Your task to perform on an android device: turn pop-ups on in chrome Image 0: 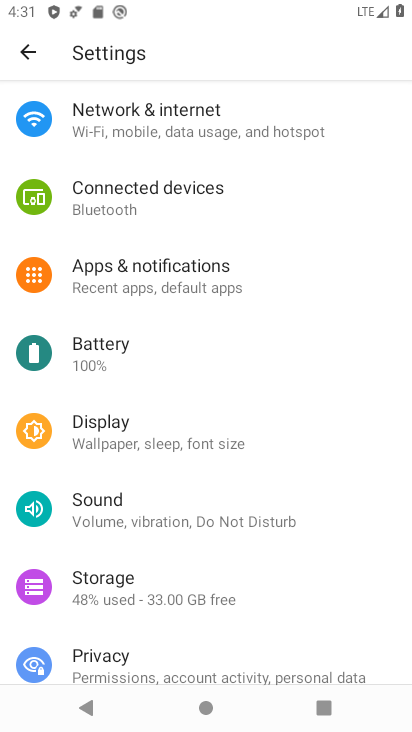
Step 0: press back button
Your task to perform on an android device: turn pop-ups on in chrome Image 1: 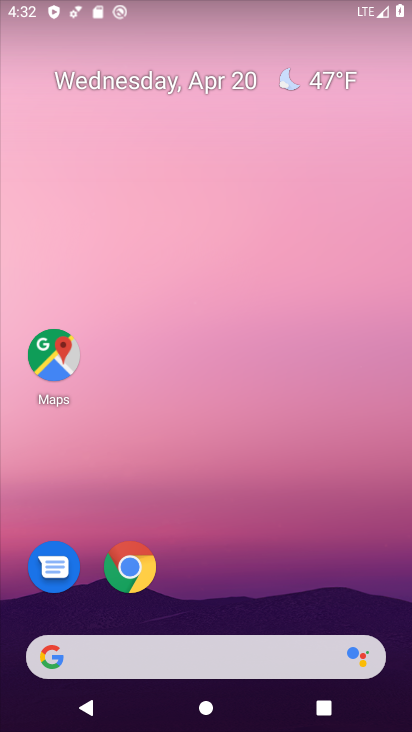
Step 1: drag from (293, 529) to (190, 22)
Your task to perform on an android device: turn pop-ups on in chrome Image 2: 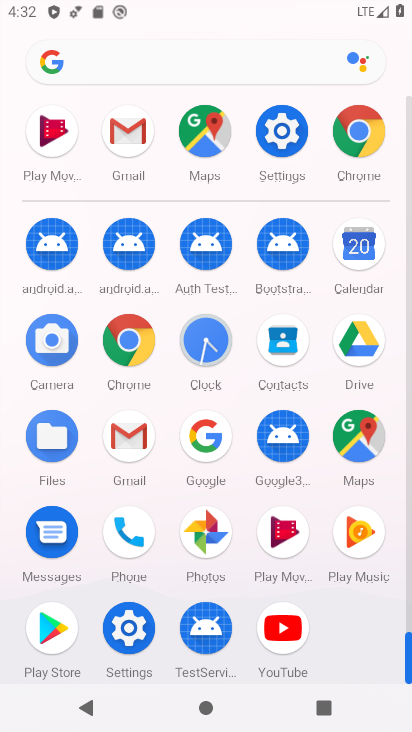
Step 2: click (353, 126)
Your task to perform on an android device: turn pop-ups on in chrome Image 3: 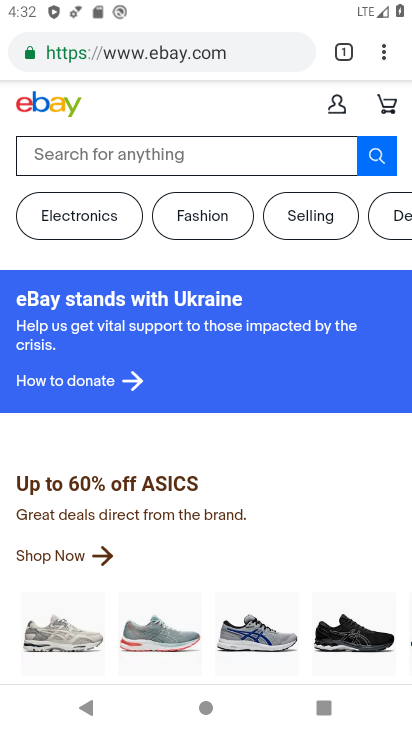
Step 3: drag from (384, 55) to (211, 600)
Your task to perform on an android device: turn pop-ups on in chrome Image 4: 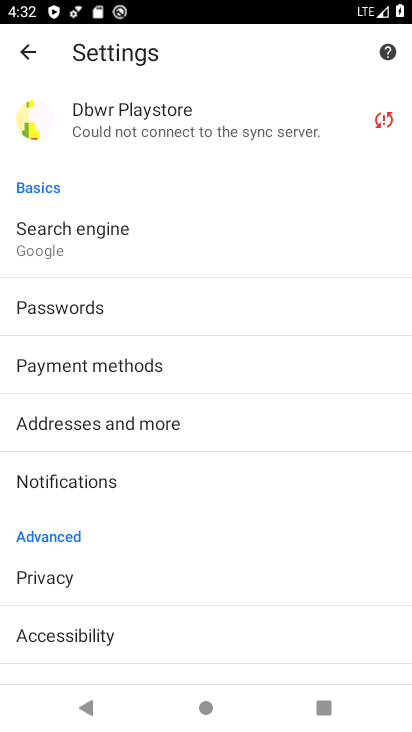
Step 4: drag from (240, 531) to (242, 206)
Your task to perform on an android device: turn pop-ups on in chrome Image 5: 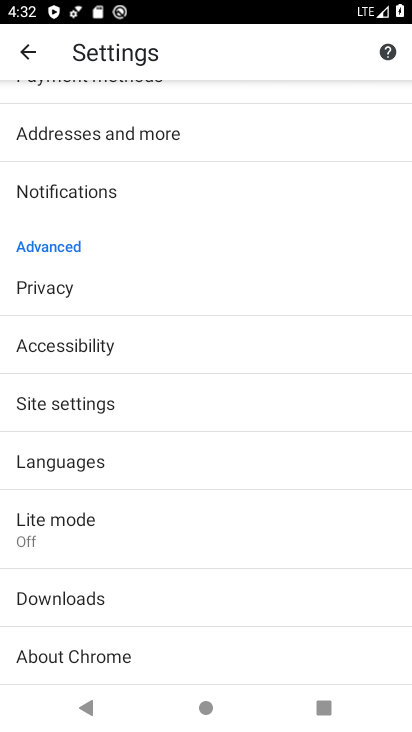
Step 5: click (85, 396)
Your task to perform on an android device: turn pop-ups on in chrome Image 6: 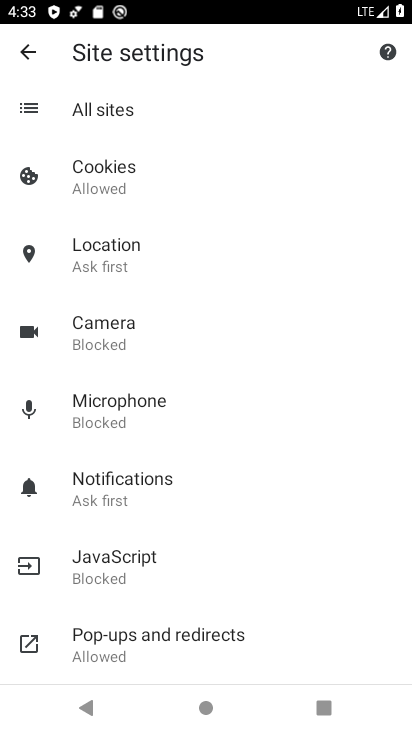
Step 6: drag from (237, 495) to (241, 162)
Your task to perform on an android device: turn pop-ups on in chrome Image 7: 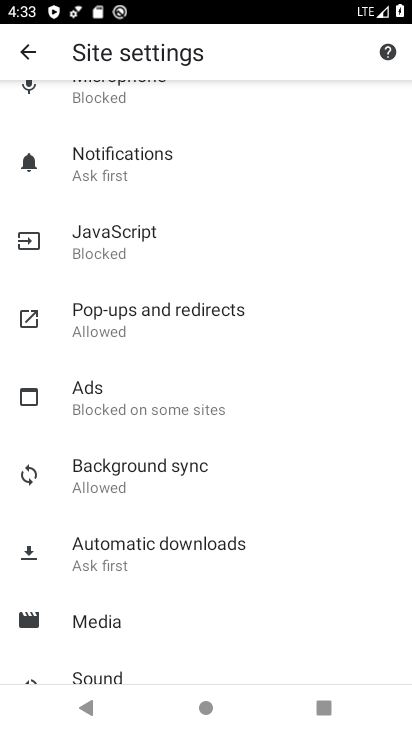
Step 7: click (172, 328)
Your task to perform on an android device: turn pop-ups on in chrome Image 8: 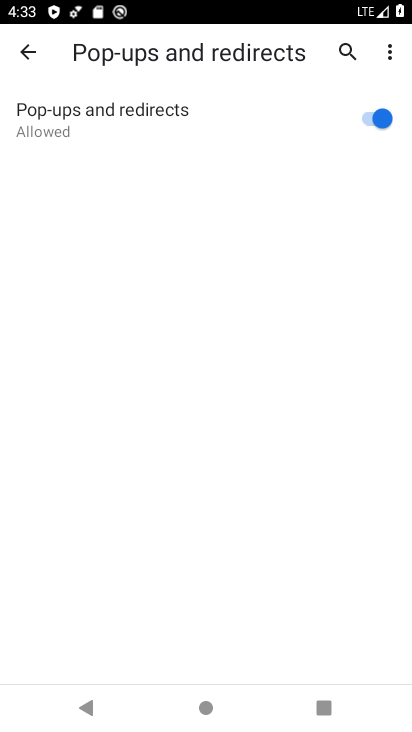
Step 8: task complete